Your task to perform on an android device: turn off notifications settings in the gmail app Image 0: 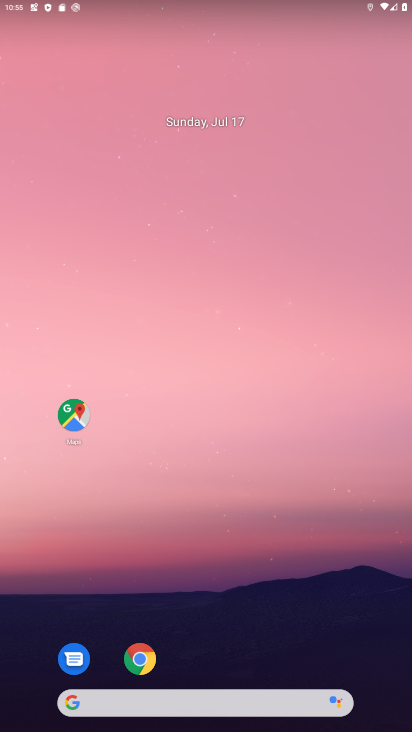
Step 0: drag from (282, 600) to (280, 1)
Your task to perform on an android device: turn off notifications settings in the gmail app Image 1: 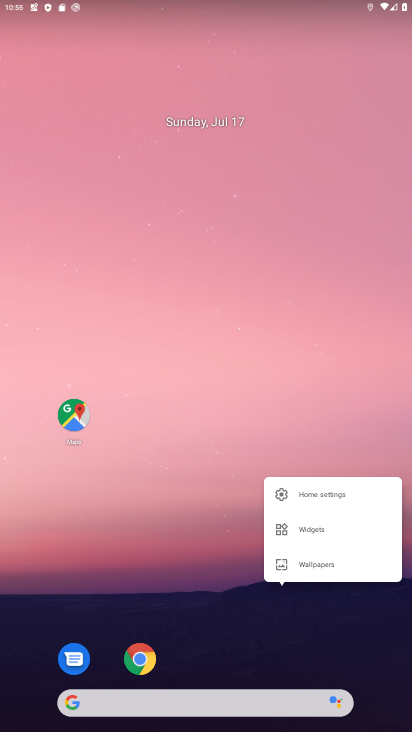
Step 1: click (180, 516)
Your task to perform on an android device: turn off notifications settings in the gmail app Image 2: 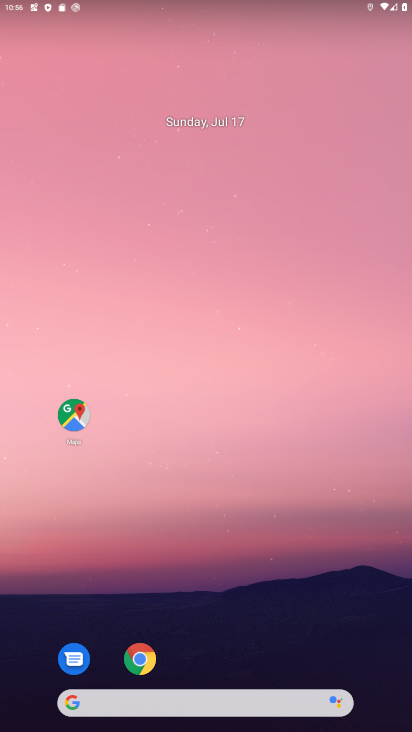
Step 2: drag from (286, 584) to (313, 0)
Your task to perform on an android device: turn off notifications settings in the gmail app Image 3: 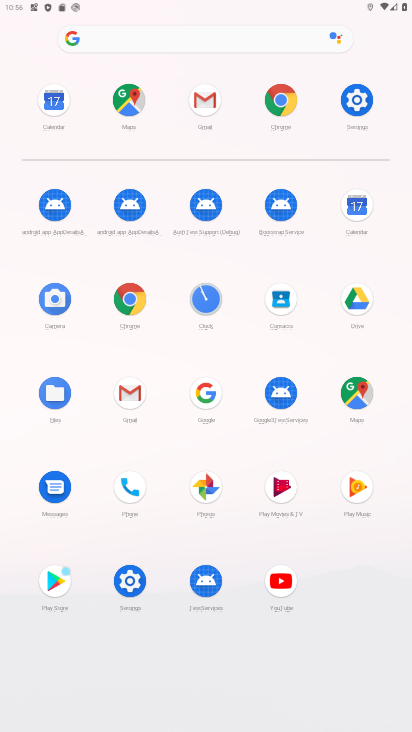
Step 3: click (209, 107)
Your task to perform on an android device: turn off notifications settings in the gmail app Image 4: 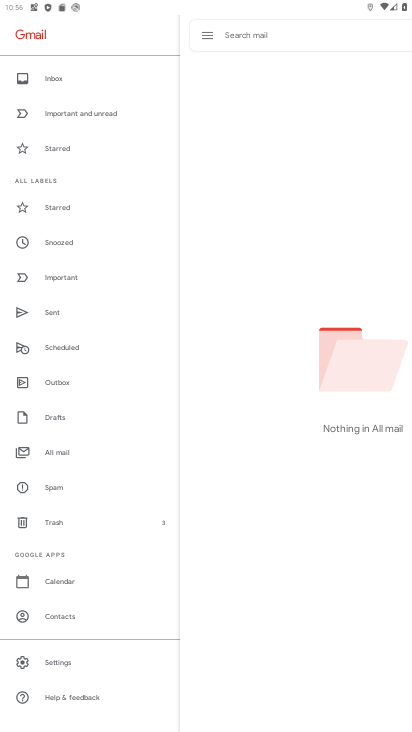
Step 4: click (56, 661)
Your task to perform on an android device: turn off notifications settings in the gmail app Image 5: 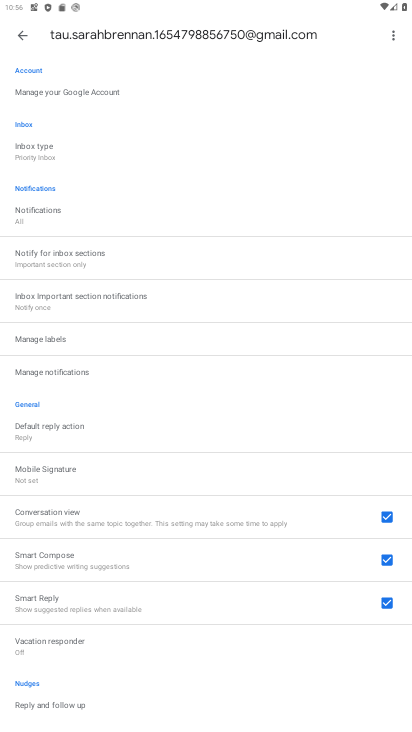
Step 5: click (26, 367)
Your task to perform on an android device: turn off notifications settings in the gmail app Image 6: 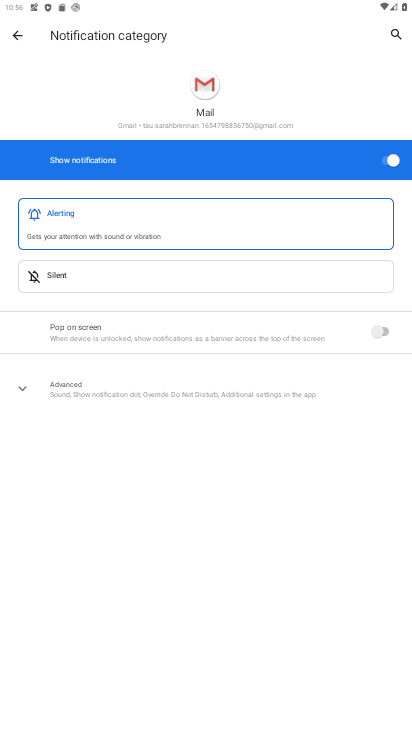
Step 6: click (387, 156)
Your task to perform on an android device: turn off notifications settings in the gmail app Image 7: 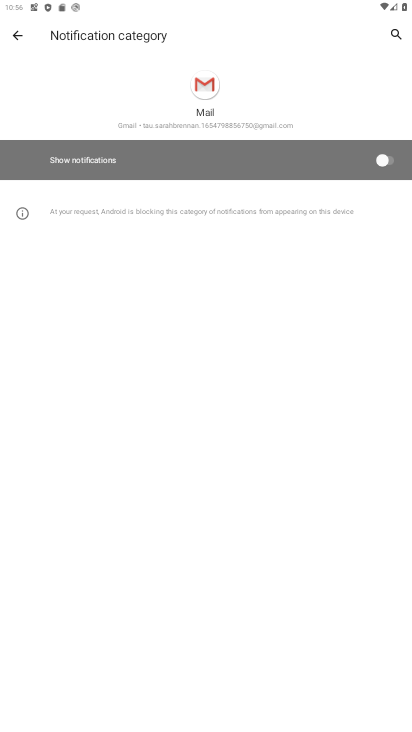
Step 7: task complete